Your task to perform on an android device: Open the Play Movies app and select the watchlist tab. Image 0: 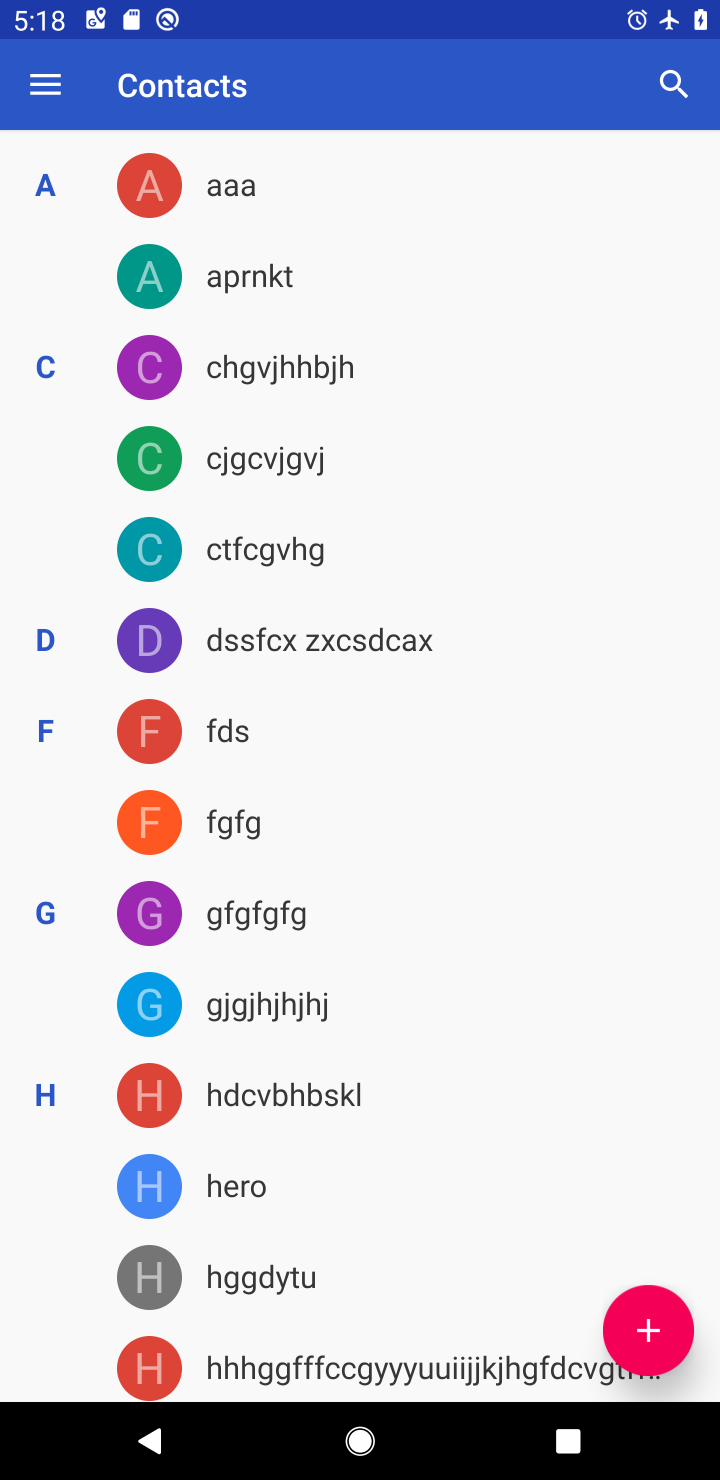
Step 0: press home button
Your task to perform on an android device: Open the Play Movies app and select the watchlist tab. Image 1: 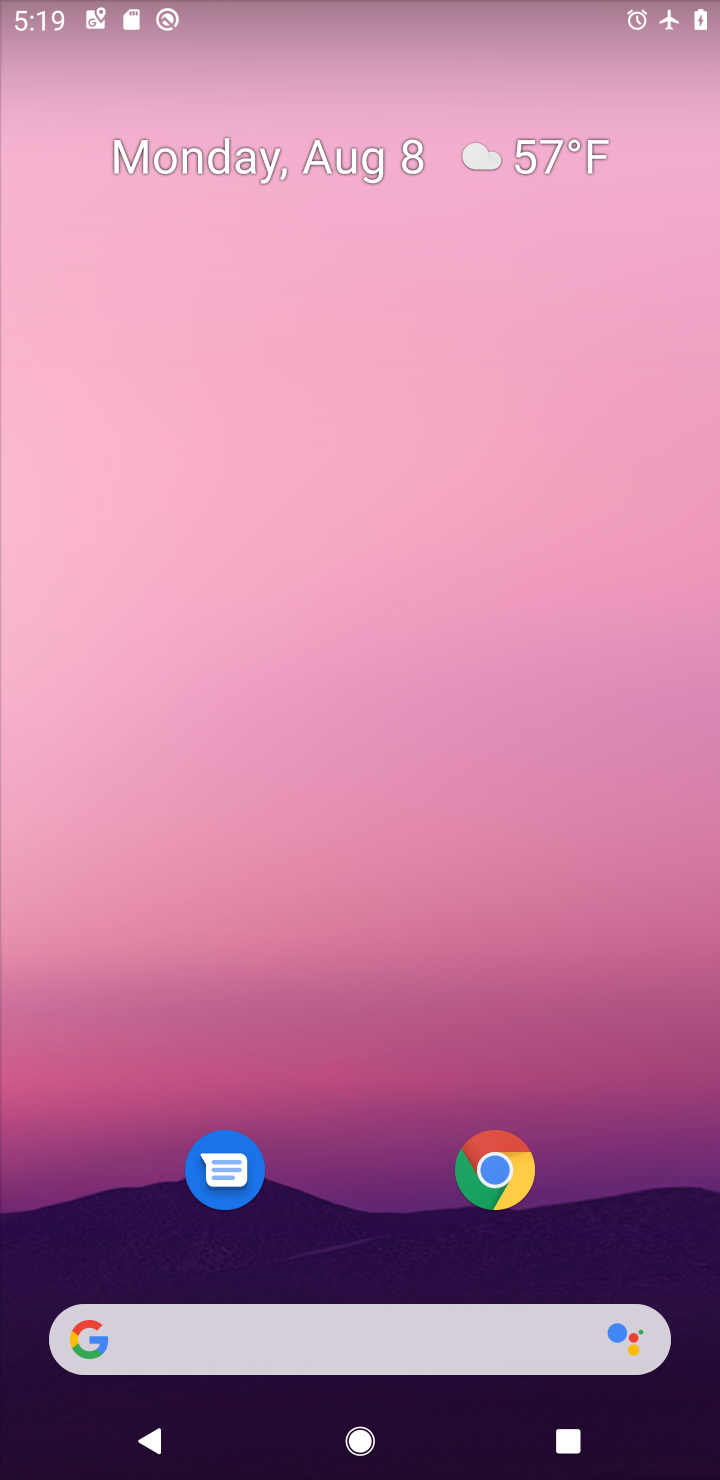
Step 1: drag from (331, 1236) to (336, 249)
Your task to perform on an android device: Open the Play Movies app and select the watchlist tab. Image 2: 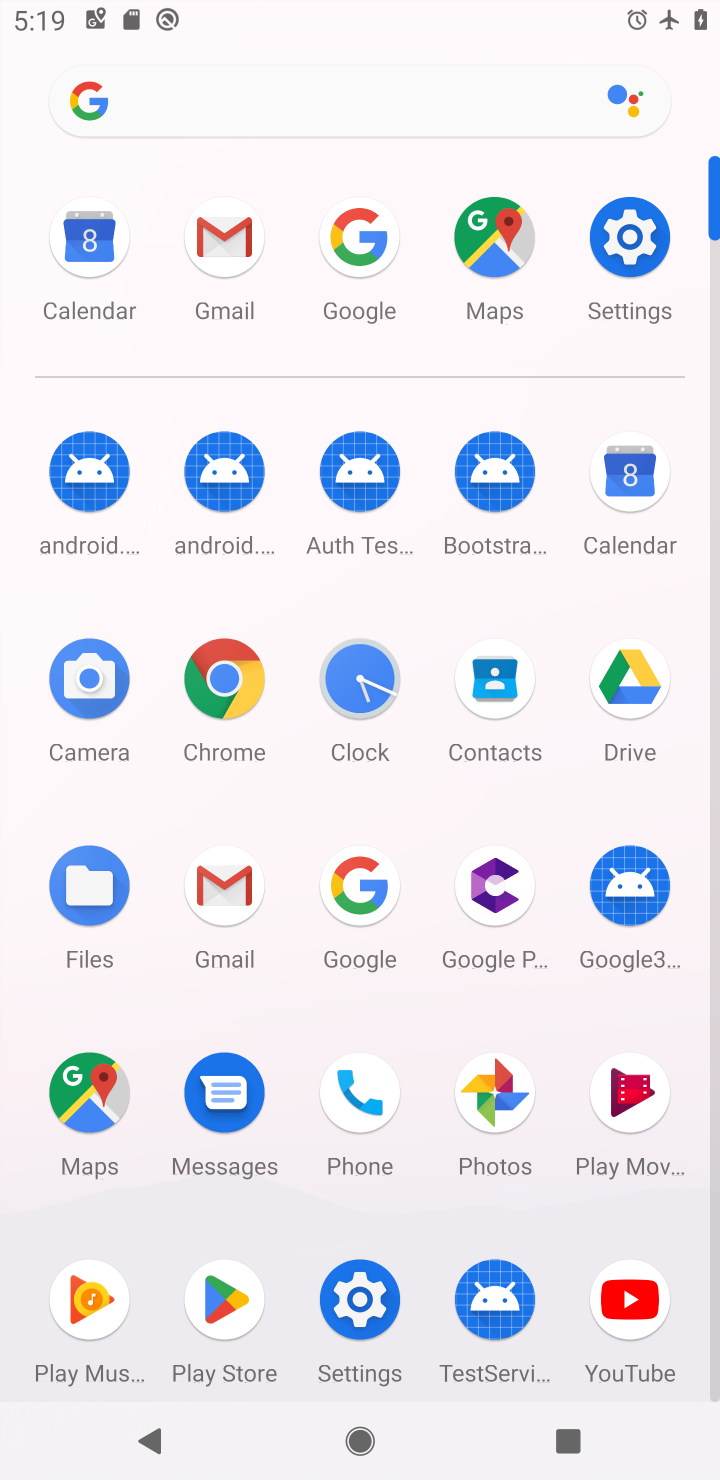
Step 2: click (621, 1087)
Your task to perform on an android device: Open the Play Movies app and select the watchlist tab. Image 3: 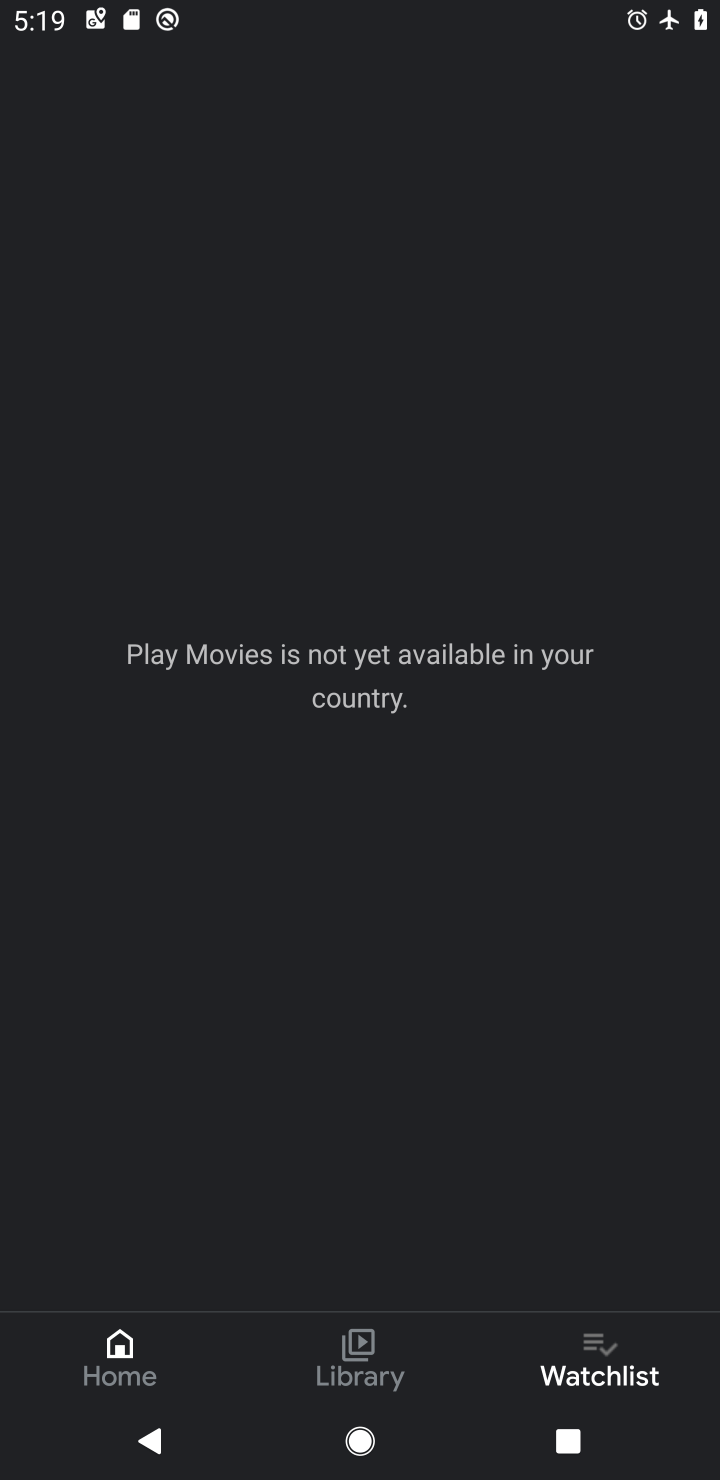
Step 3: click (603, 1355)
Your task to perform on an android device: Open the Play Movies app and select the watchlist tab. Image 4: 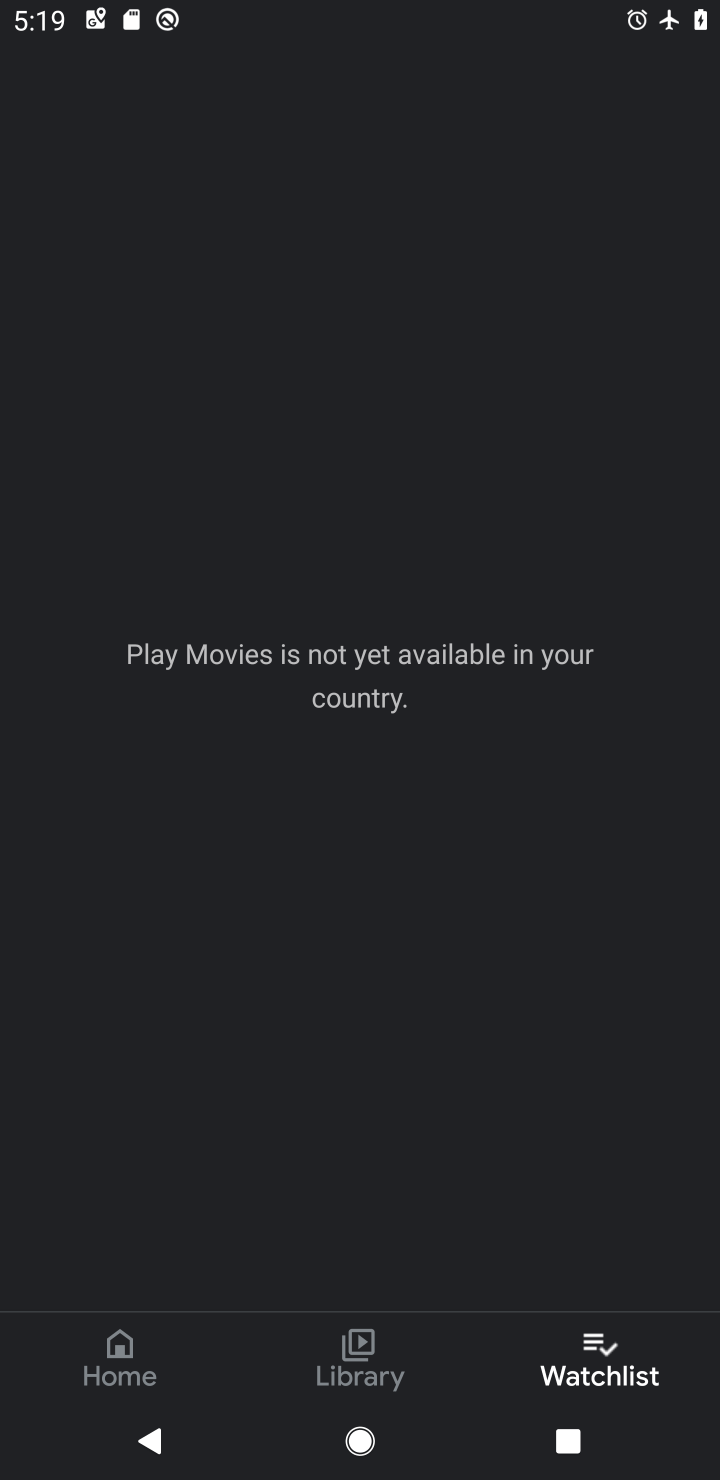
Step 4: task complete